Your task to perform on an android device: Open Google Maps and go to "Timeline" Image 0: 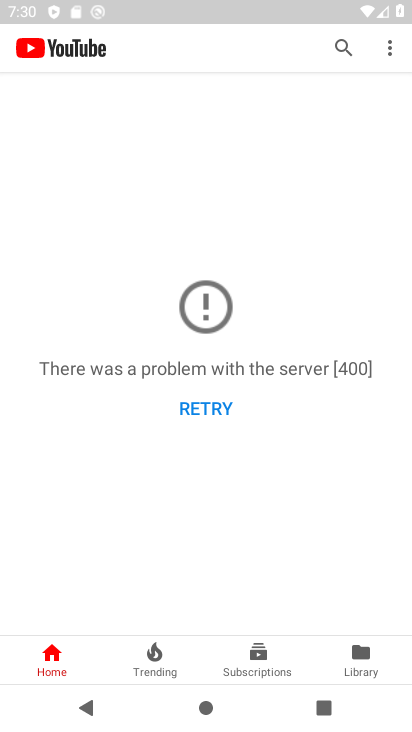
Step 0: press home button
Your task to perform on an android device: Open Google Maps and go to "Timeline" Image 1: 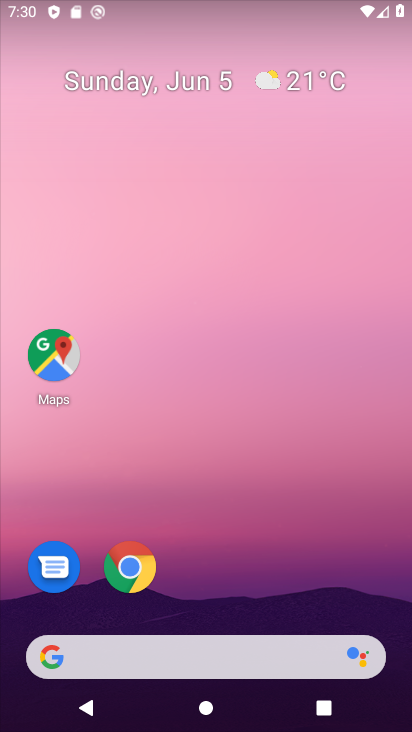
Step 1: click (55, 368)
Your task to perform on an android device: Open Google Maps and go to "Timeline" Image 2: 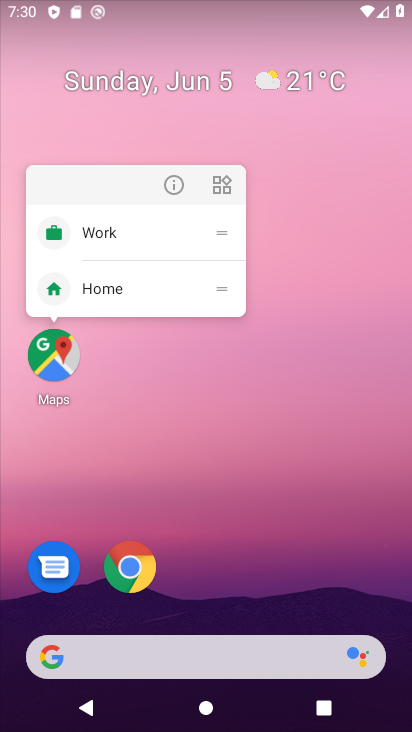
Step 2: click (54, 372)
Your task to perform on an android device: Open Google Maps and go to "Timeline" Image 3: 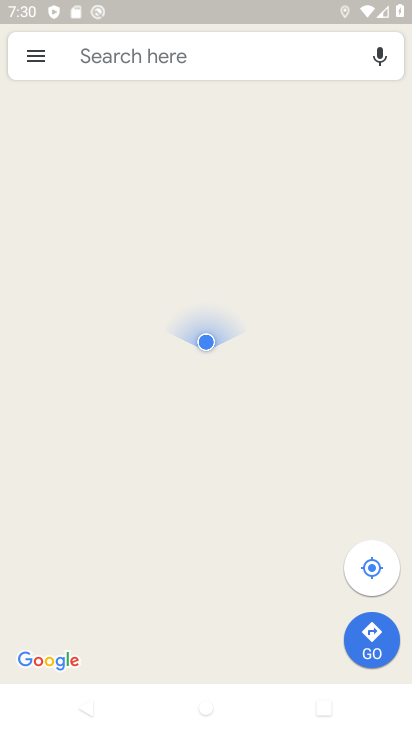
Step 3: click (30, 55)
Your task to perform on an android device: Open Google Maps and go to "Timeline" Image 4: 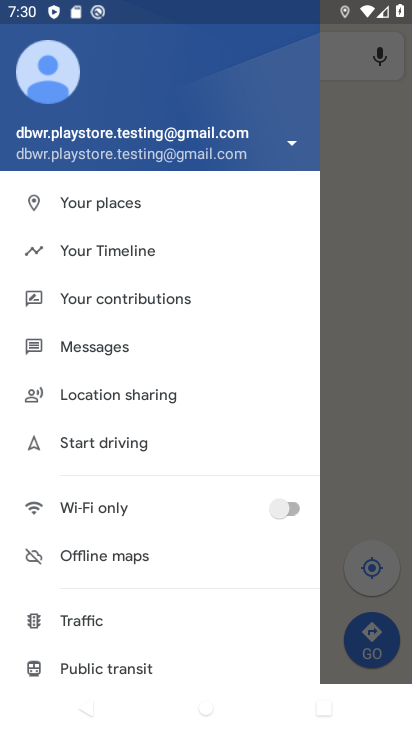
Step 4: click (96, 256)
Your task to perform on an android device: Open Google Maps and go to "Timeline" Image 5: 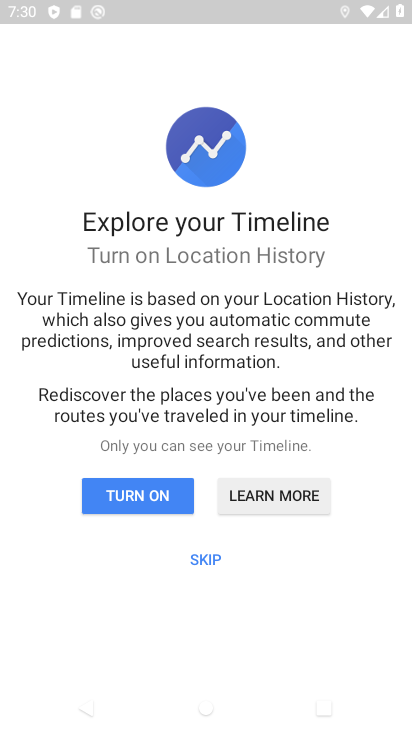
Step 5: click (209, 549)
Your task to perform on an android device: Open Google Maps and go to "Timeline" Image 6: 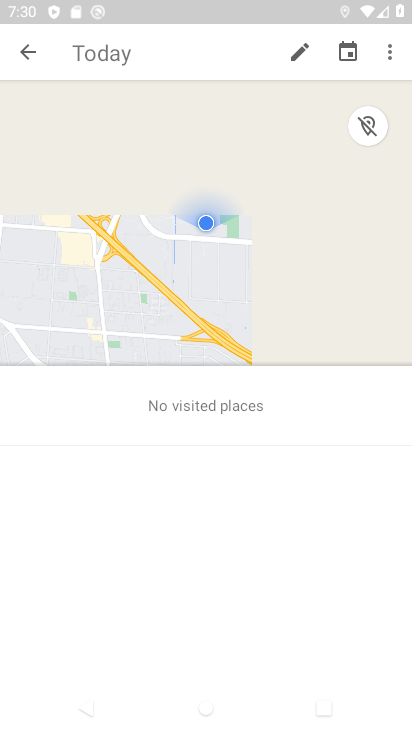
Step 6: task complete